Your task to perform on an android device: clear history in the chrome app Image 0: 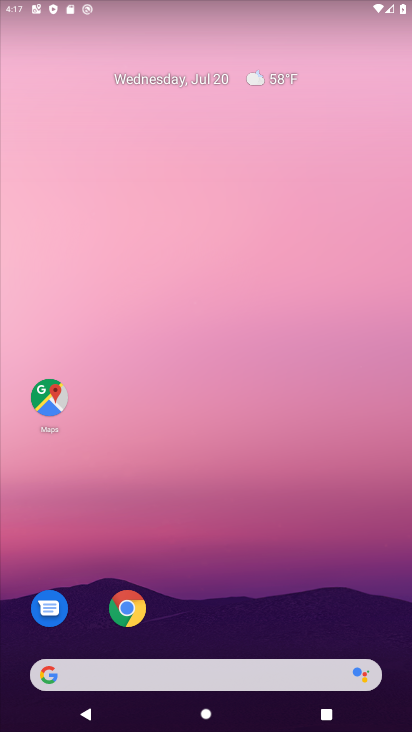
Step 0: click (138, 605)
Your task to perform on an android device: clear history in the chrome app Image 1: 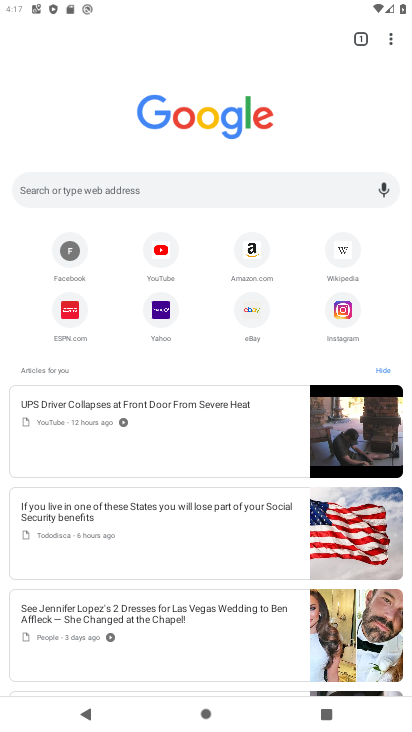
Step 1: click (392, 45)
Your task to perform on an android device: clear history in the chrome app Image 2: 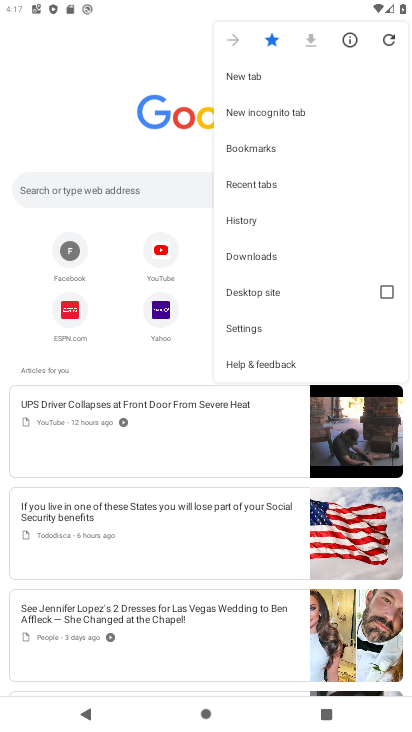
Step 2: click (241, 219)
Your task to perform on an android device: clear history in the chrome app Image 3: 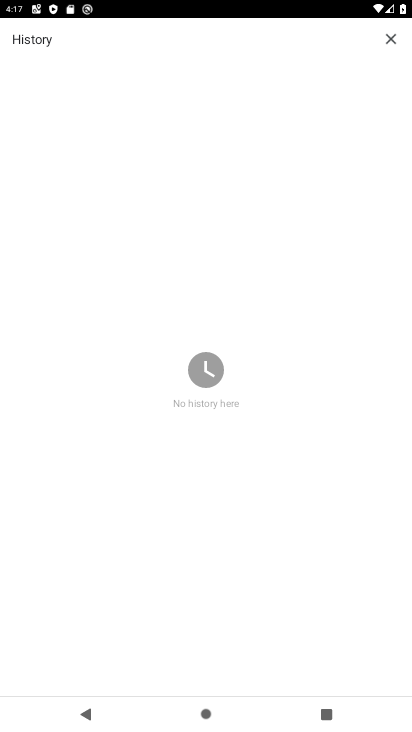
Step 3: task complete